Your task to perform on an android device: turn on data saver in the chrome app Image 0: 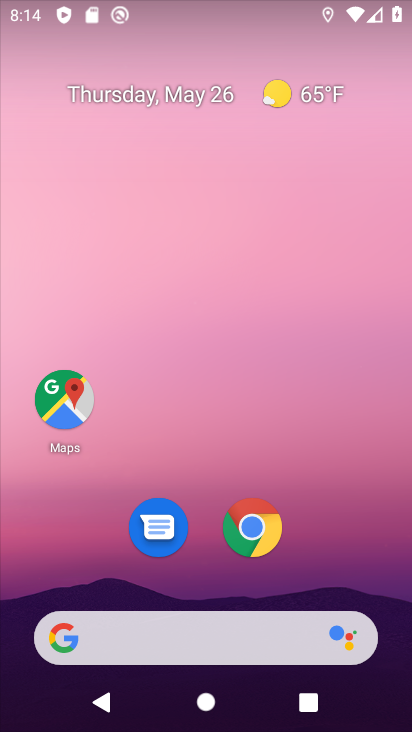
Step 0: drag from (400, 573) to (334, 47)
Your task to perform on an android device: turn on data saver in the chrome app Image 1: 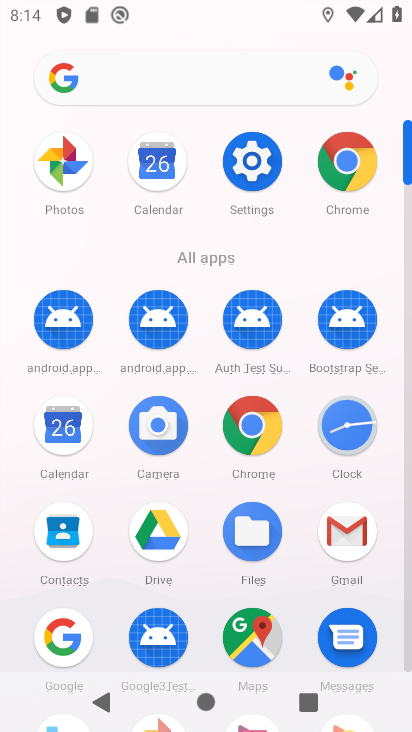
Step 1: click (347, 162)
Your task to perform on an android device: turn on data saver in the chrome app Image 2: 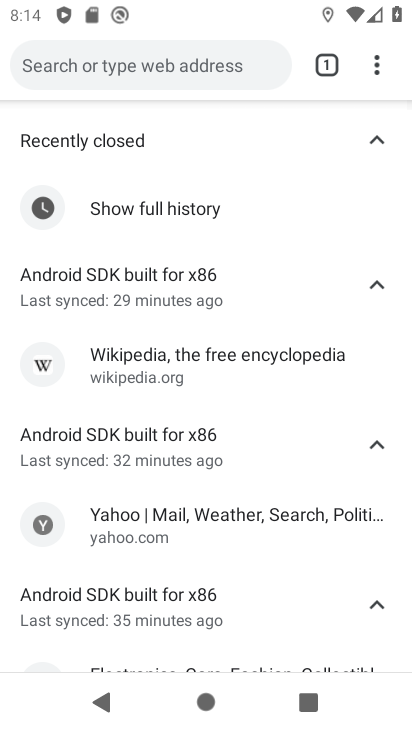
Step 2: drag from (374, 75) to (214, 567)
Your task to perform on an android device: turn on data saver in the chrome app Image 3: 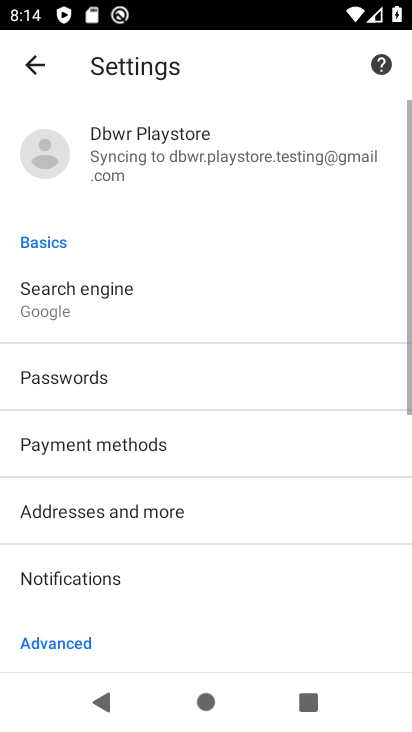
Step 3: drag from (220, 567) to (224, 93)
Your task to perform on an android device: turn on data saver in the chrome app Image 4: 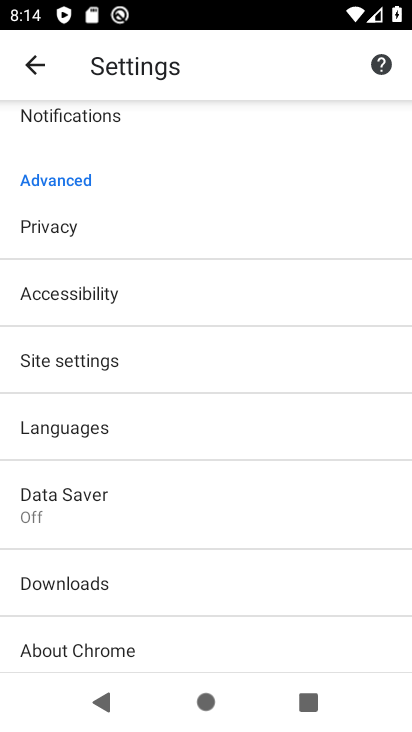
Step 4: drag from (186, 568) to (154, 77)
Your task to perform on an android device: turn on data saver in the chrome app Image 5: 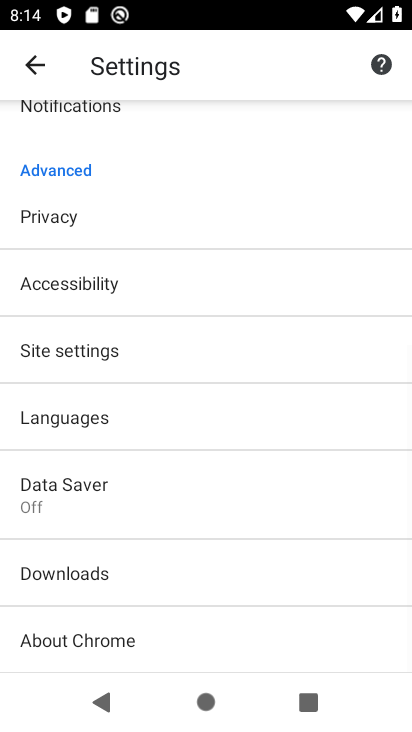
Step 5: click (150, 497)
Your task to perform on an android device: turn on data saver in the chrome app Image 6: 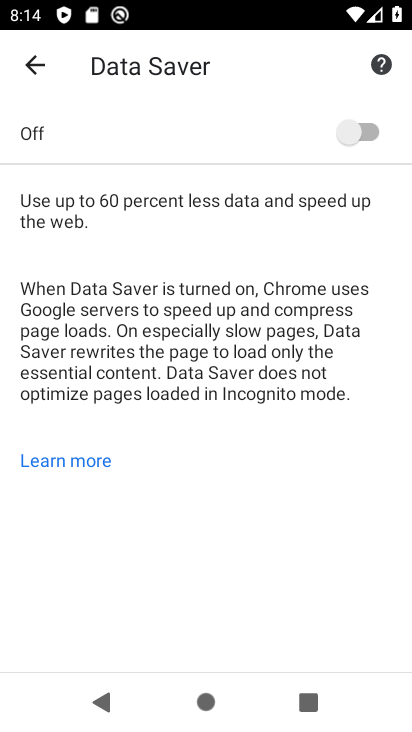
Step 6: click (345, 142)
Your task to perform on an android device: turn on data saver in the chrome app Image 7: 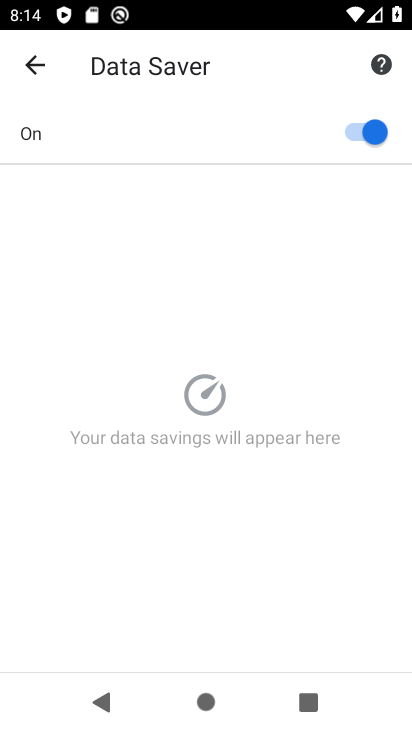
Step 7: task complete